Your task to perform on an android device: delete a single message in the gmail app Image 0: 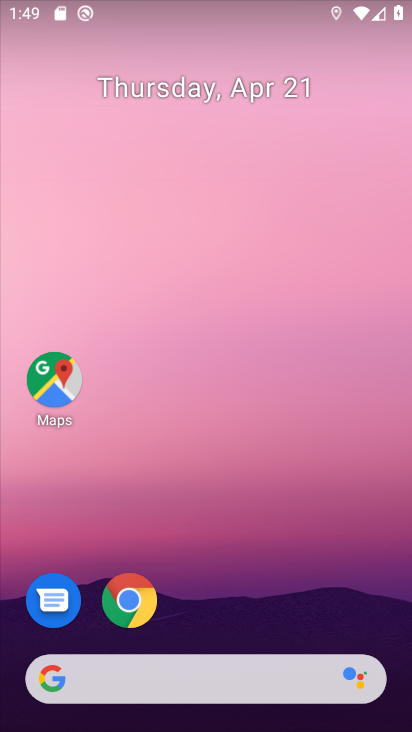
Step 0: drag from (278, 610) to (144, 71)
Your task to perform on an android device: delete a single message in the gmail app Image 1: 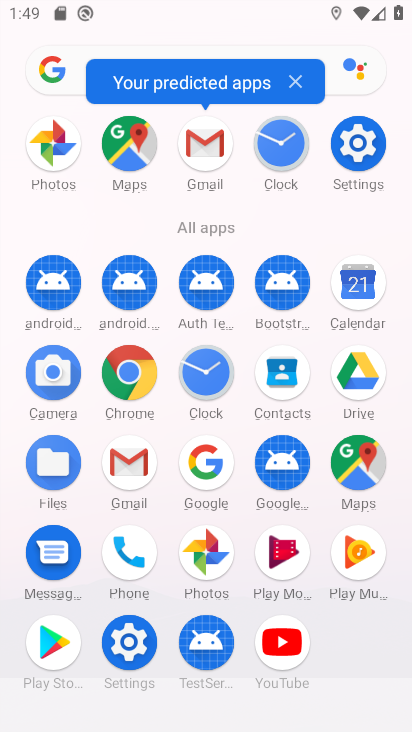
Step 1: click (133, 473)
Your task to perform on an android device: delete a single message in the gmail app Image 2: 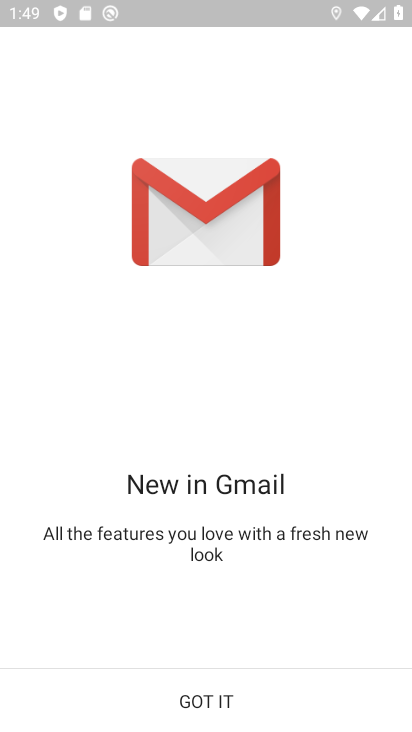
Step 2: click (144, 712)
Your task to perform on an android device: delete a single message in the gmail app Image 3: 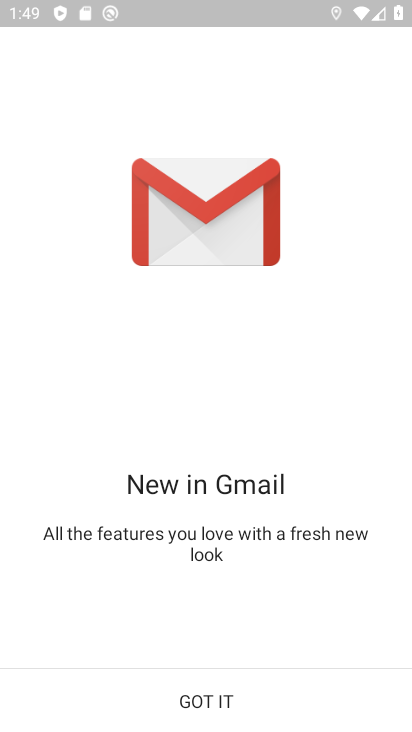
Step 3: click (145, 713)
Your task to perform on an android device: delete a single message in the gmail app Image 4: 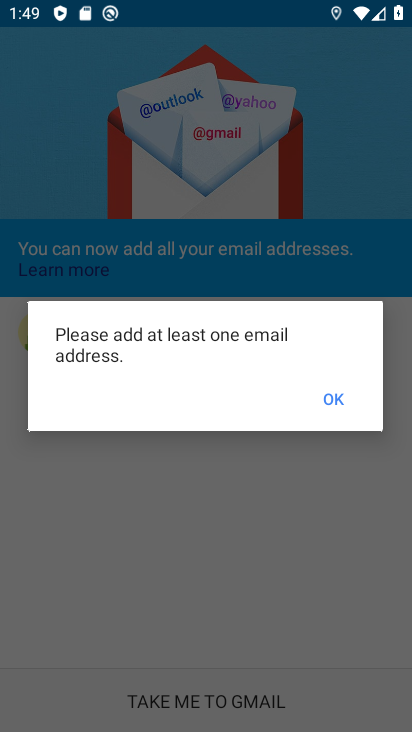
Step 4: click (349, 403)
Your task to perform on an android device: delete a single message in the gmail app Image 5: 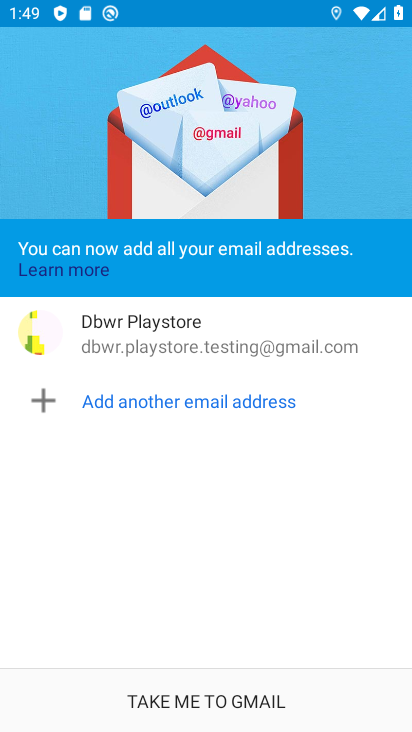
Step 5: click (334, 396)
Your task to perform on an android device: delete a single message in the gmail app Image 6: 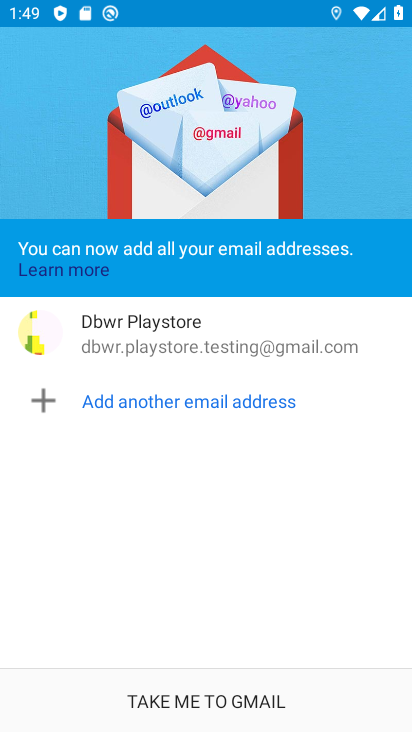
Step 6: click (255, 363)
Your task to perform on an android device: delete a single message in the gmail app Image 7: 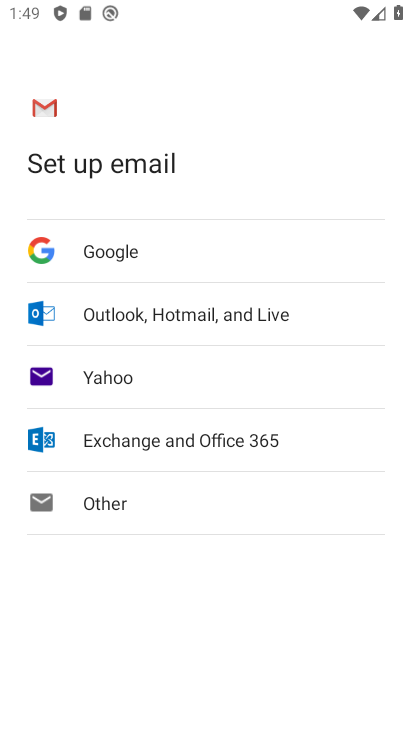
Step 7: press back button
Your task to perform on an android device: delete a single message in the gmail app Image 8: 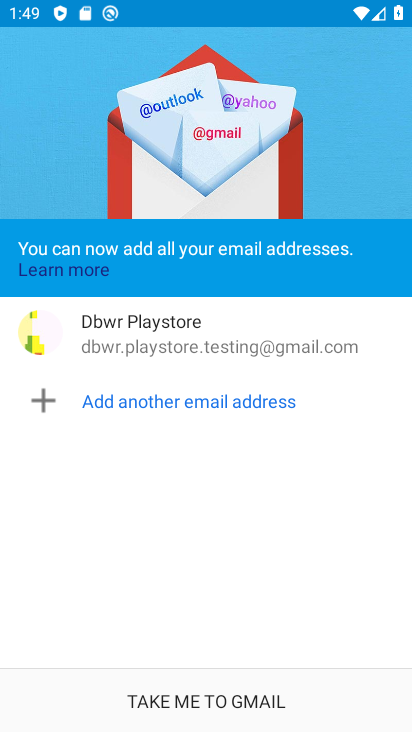
Step 8: click (199, 325)
Your task to perform on an android device: delete a single message in the gmail app Image 9: 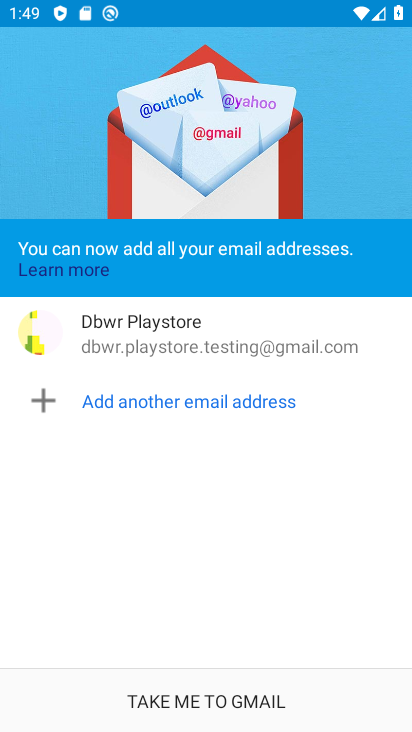
Step 9: click (251, 707)
Your task to perform on an android device: delete a single message in the gmail app Image 10: 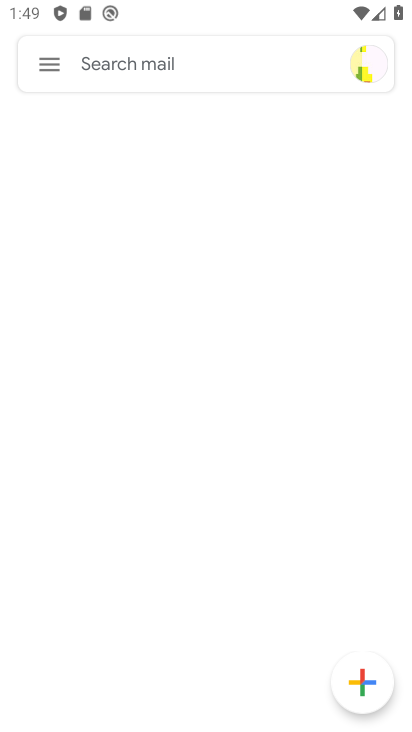
Step 10: click (42, 75)
Your task to perform on an android device: delete a single message in the gmail app Image 11: 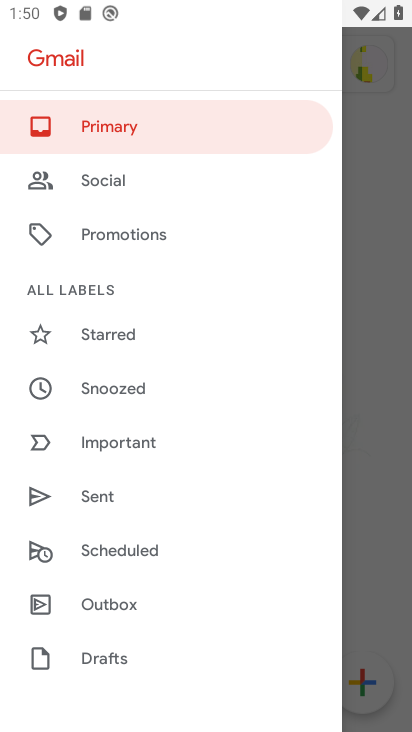
Step 11: drag from (126, 537) to (140, 188)
Your task to perform on an android device: delete a single message in the gmail app Image 12: 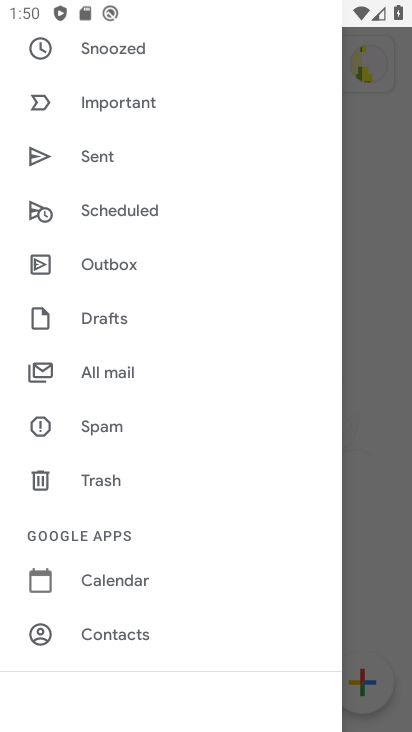
Step 12: click (103, 374)
Your task to perform on an android device: delete a single message in the gmail app Image 13: 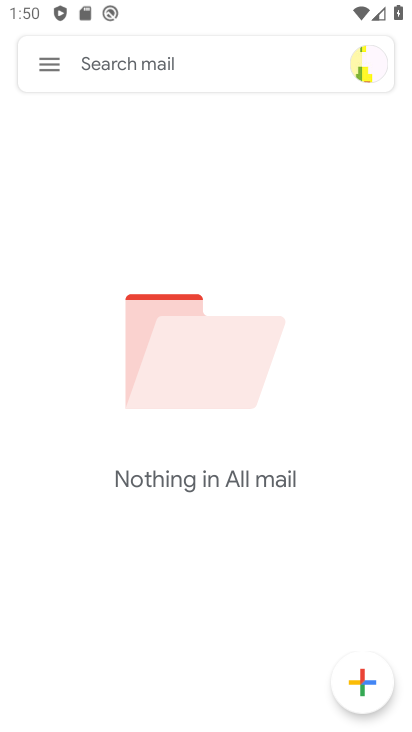
Step 13: task complete